Your task to perform on an android device: Open wifi settings Image 0: 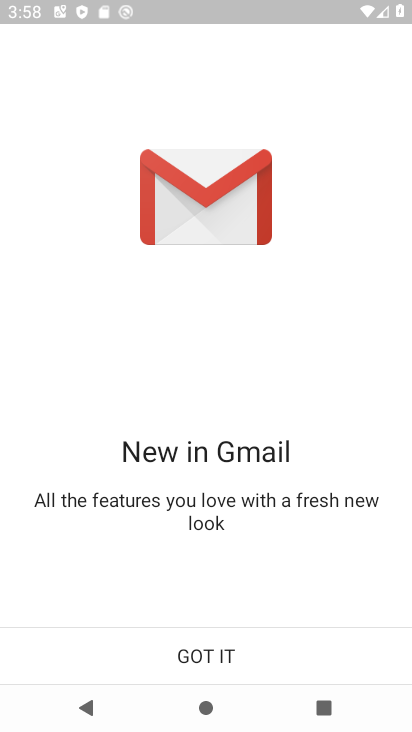
Step 0: press home button
Your task to perform on an android device: Open wifi settings Image 1: 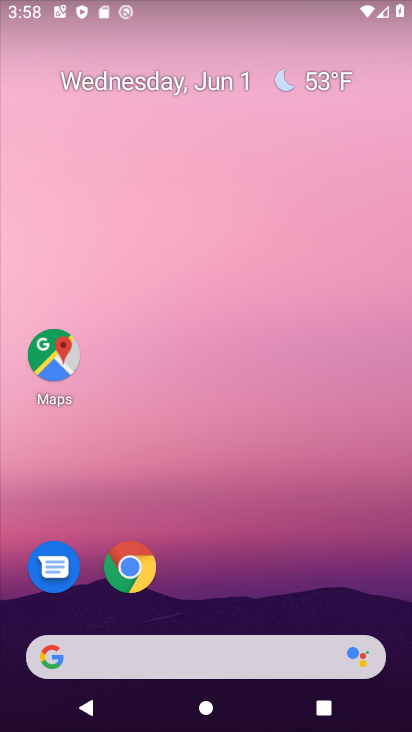
Step 1: drag from (182, 639) to (289, 145)
Your task to perform on an android device: Open wifi settings Image 2: 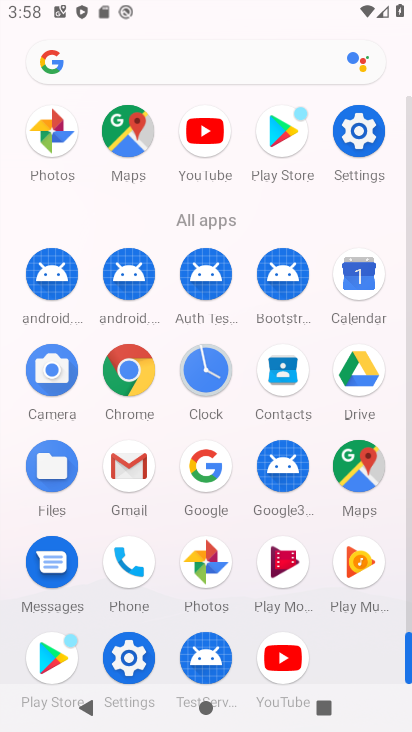
Step 2: click (117, 662)
Your task to perform on an android device: Open wifi settings Image 3: 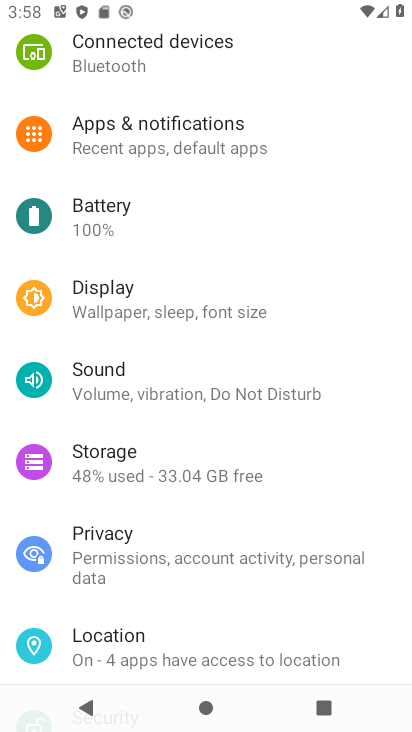
Step 3: drag from (201, 165) to (190, 475)
Your task to perform on an android device: Open wifi settings Image 4: 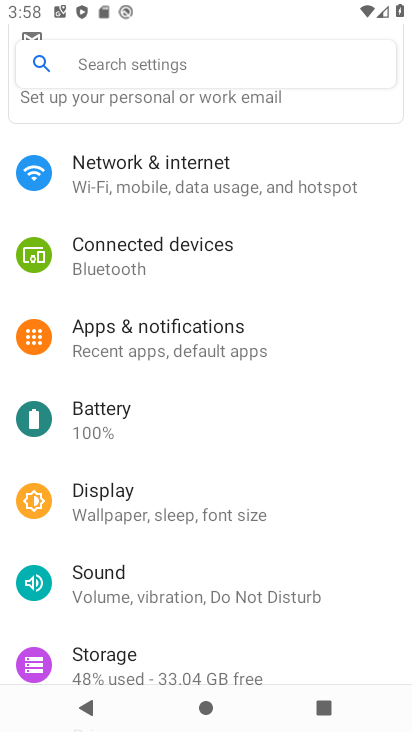
Step 4: click (228, 153)
Your task to perform on an android device: Open wifi settings Image 5: 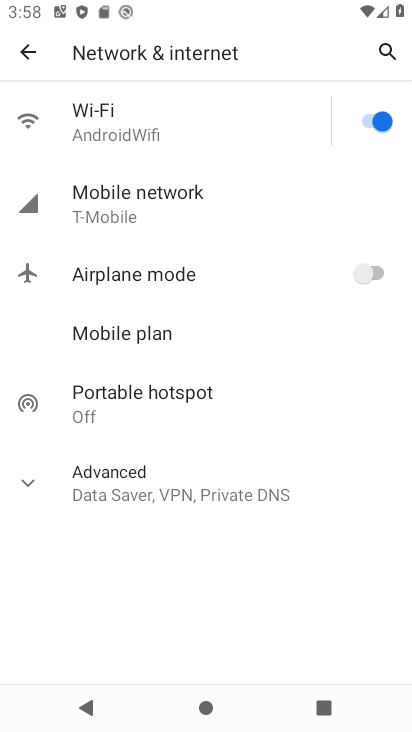
Step 5: click (193, 138)
Your task to perform on an android device: Open wifi settings Image 6: 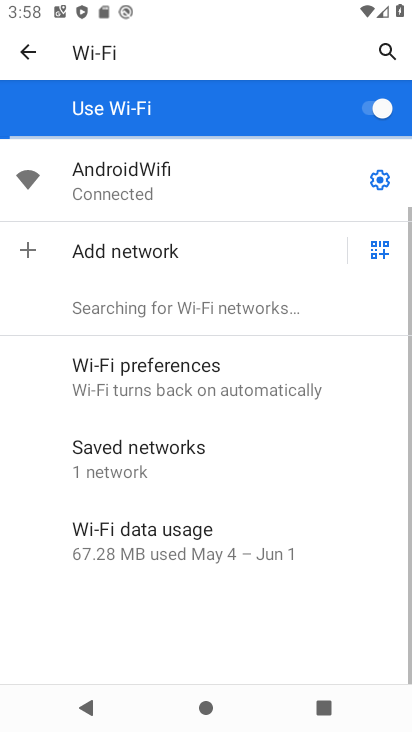
Step 6: task complete